Your task to perform on an android device: Open Yahoo.com Image 0: 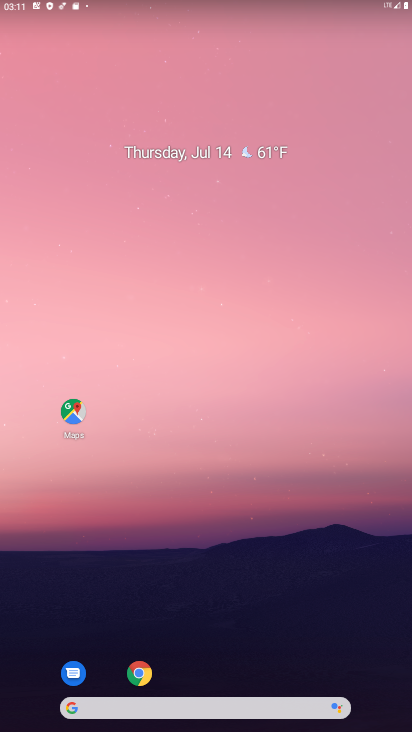
Step 0: drag from (233, 651) to (208, 99)
Your task to perform on an android device: Open Yahoo.com Image 1: 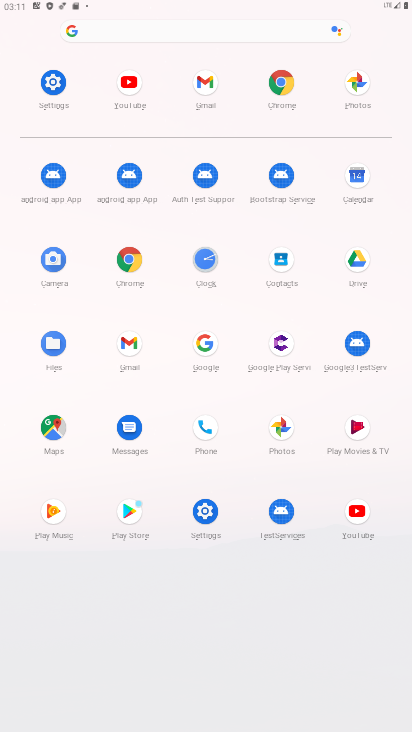
Step 1: click (273, 92)
Your task to perform on an android device: Open Yahoo.com Image 2: 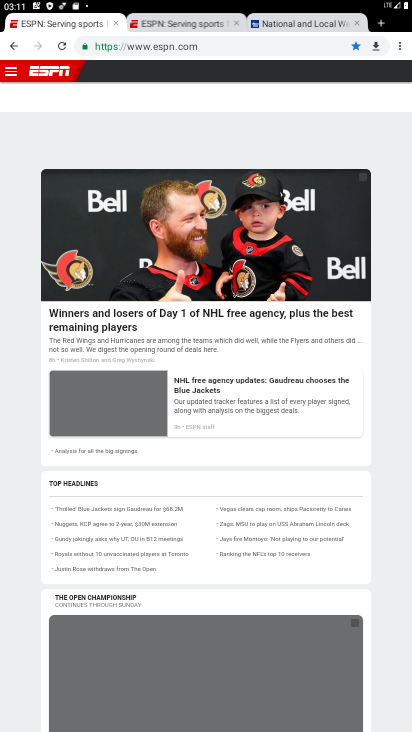
Step 2: click (380, 25)
Your task to perform on an android device: Open Yahoo.com Image 3: 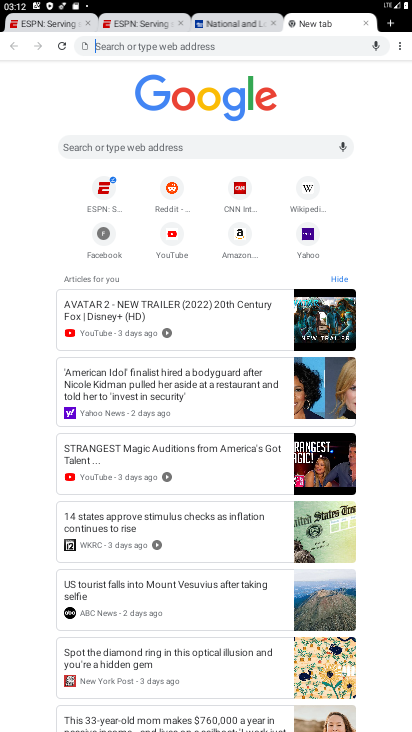
Step 3: click (302, 250)
Your task to perform on an android device: Open Yahoo.com Image 4: 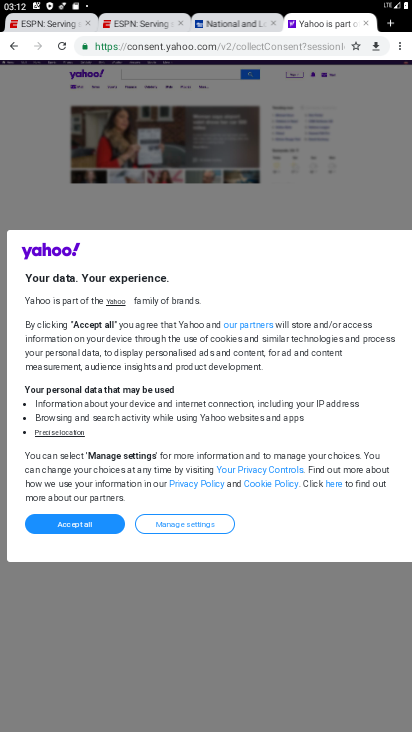
Step 4: task complete